Your task to perform on an android device: What's on my calendar tomorrow? Image 0: 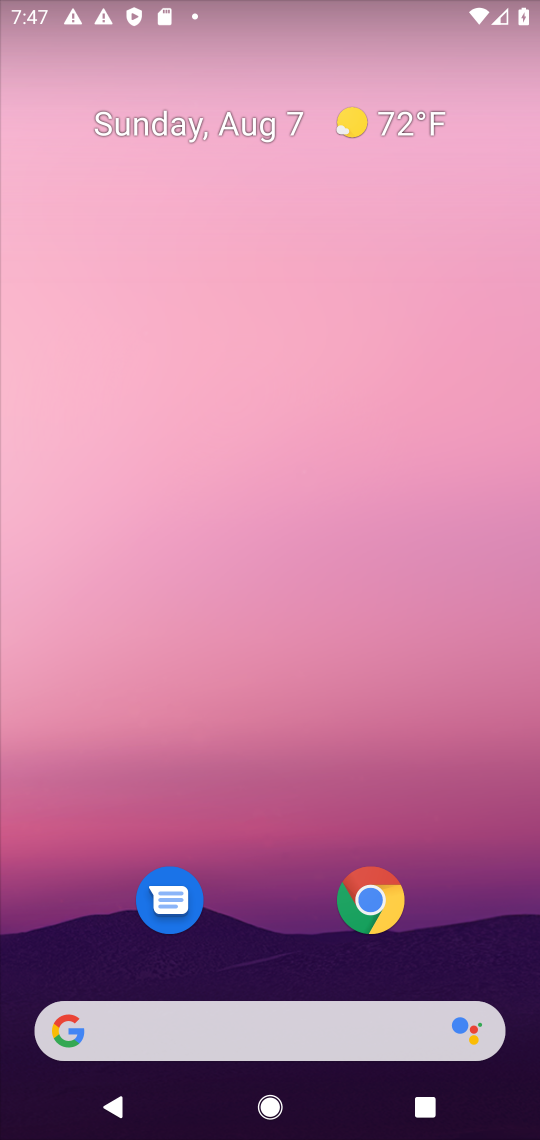
Step 0: drag from (240, 947) to (426, 286)
Your task to perform on an android device: What's on my calendar tomorrow? Image 1: 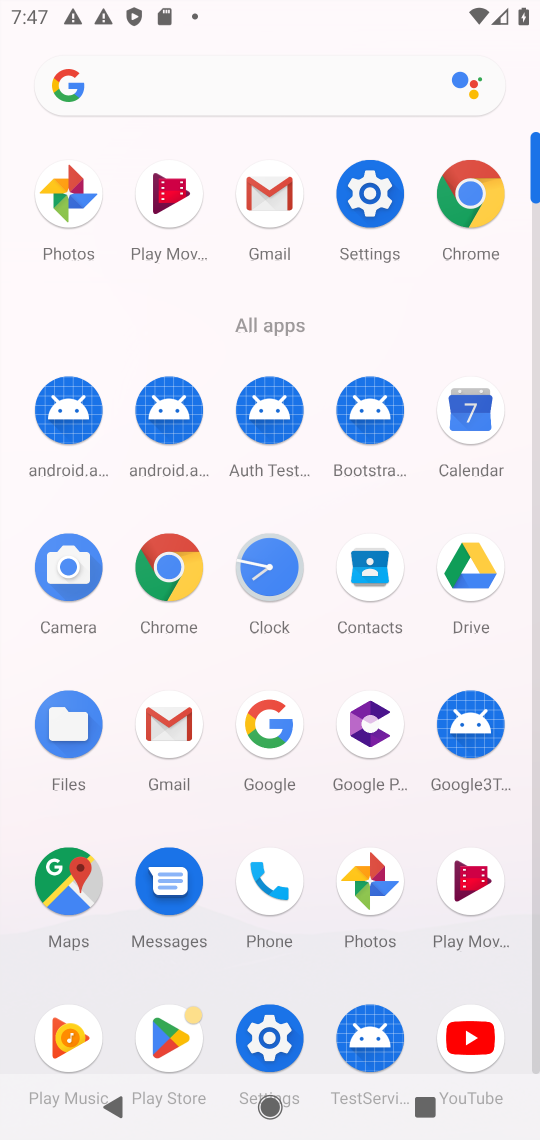
Step 1: click (475, 424)
Your task to perform on an android device: What's on my calendar tomorrow? Image 2: 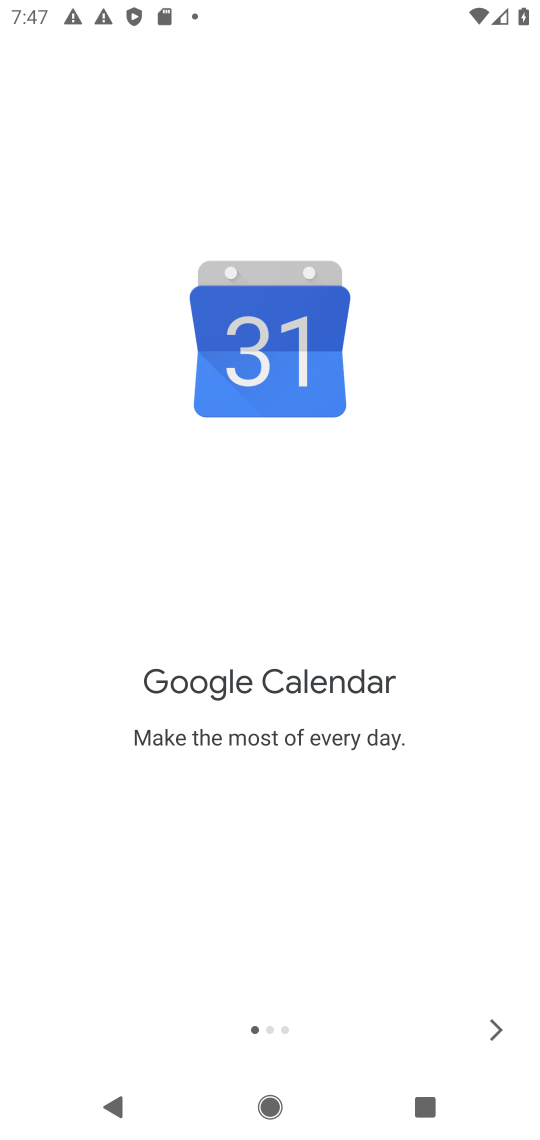
Step 2: click (488, 1037)
Your task to perform on an android device: What's on my calendar tomorrow? Image 3: 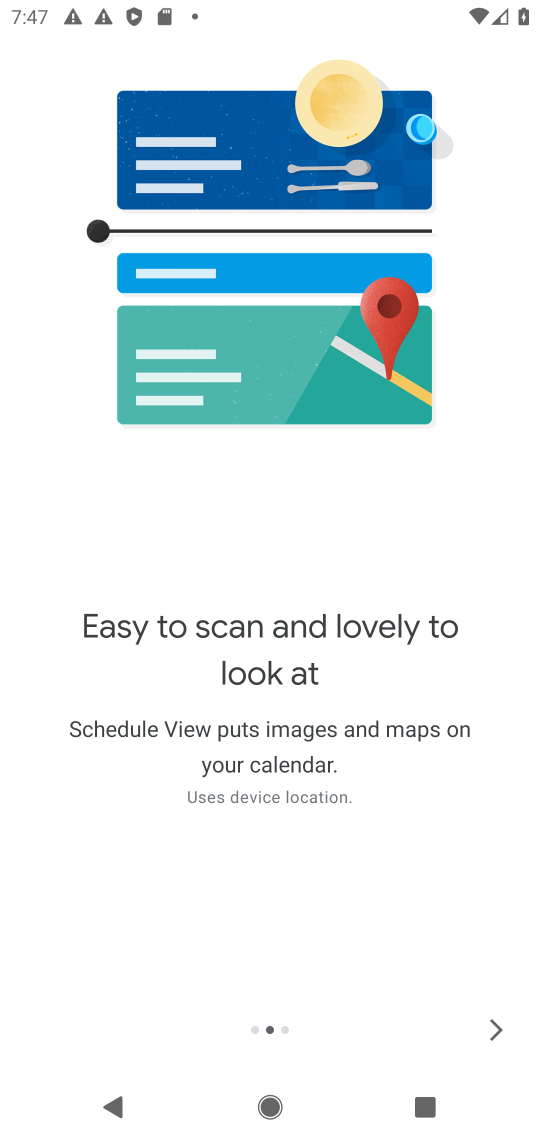
Step 3: click (495, 1023)
Your task to perform on an android device: What's on my calendar tomorrow? Image 4: 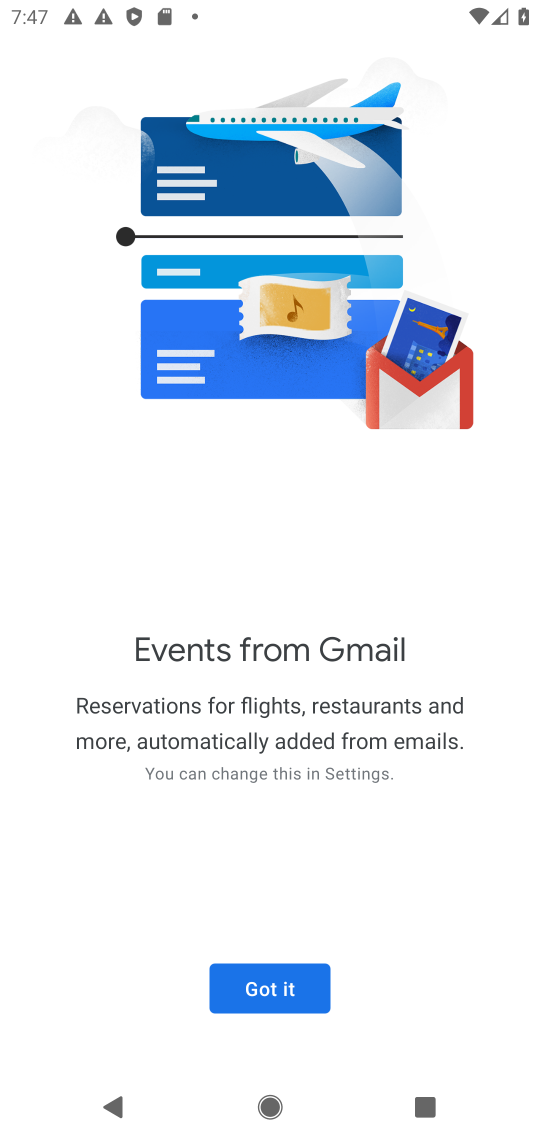
Step 4: click (257, 984)
Your task to perform on an android device: What's on my calendar tomorrow? Image 5: 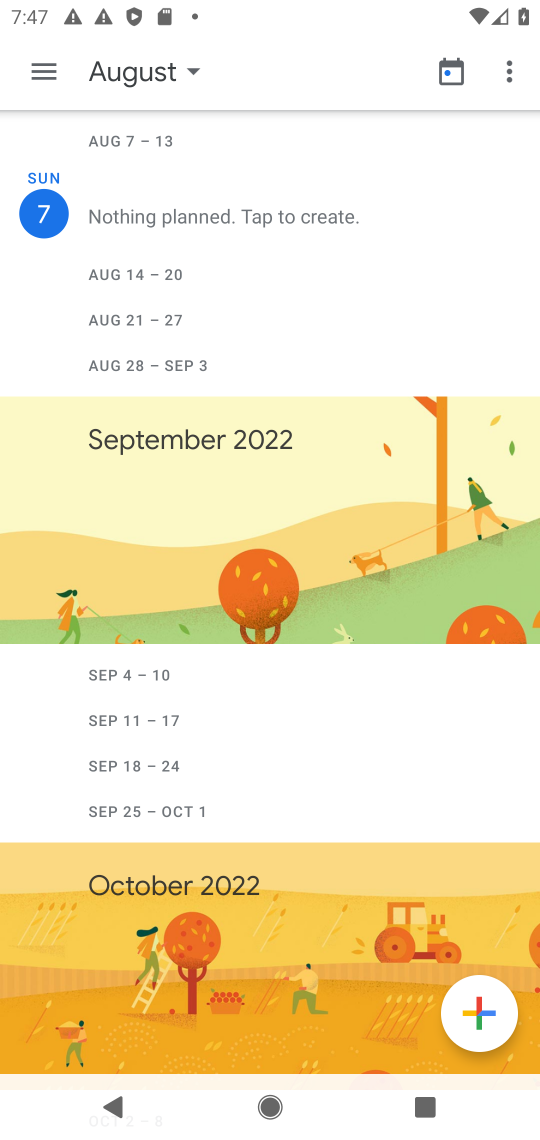
Step 5: click (124, 75)
Your task to perform on an android device: What's on my calendar tomorrow? Image 6: 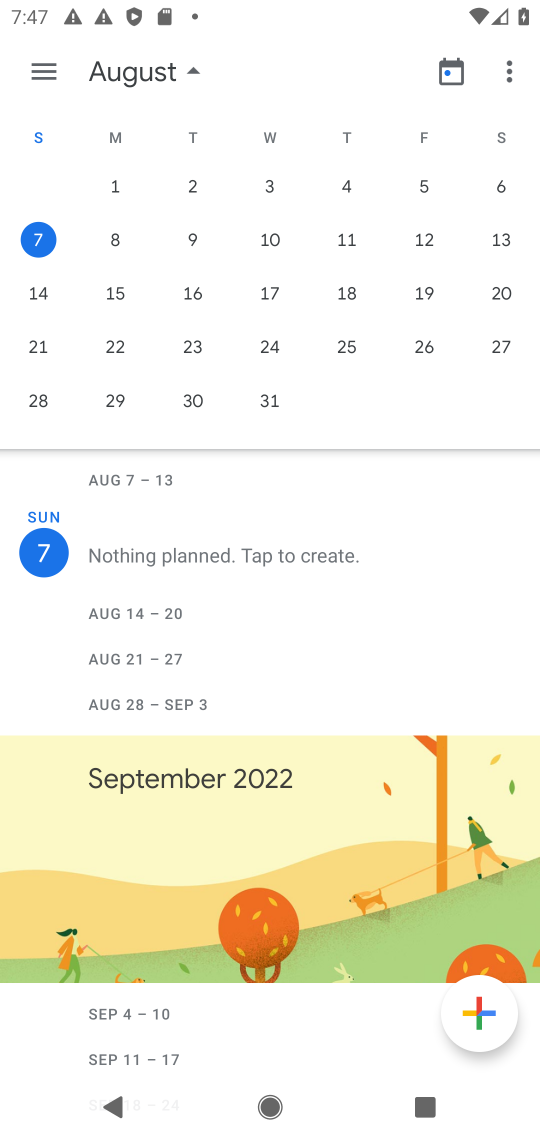
Step 6: click (113, 240)
Your task to perform on an android device: What's on my calendar tomorrow? Image 7: 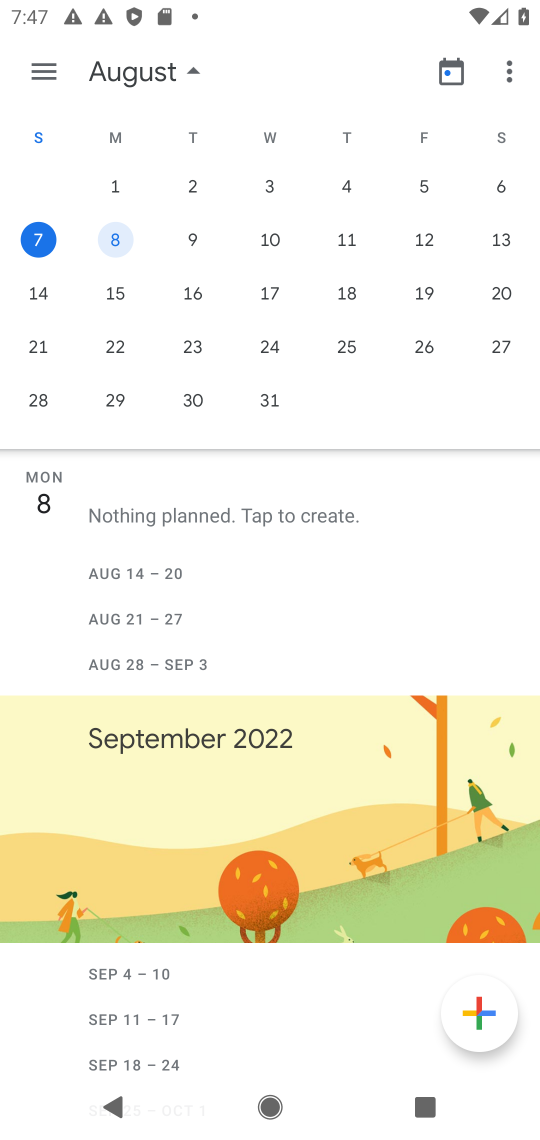
Step 7: click (36, 78)
Your task to perform on an android device: What's on my calendar tomorrow? Image 8: 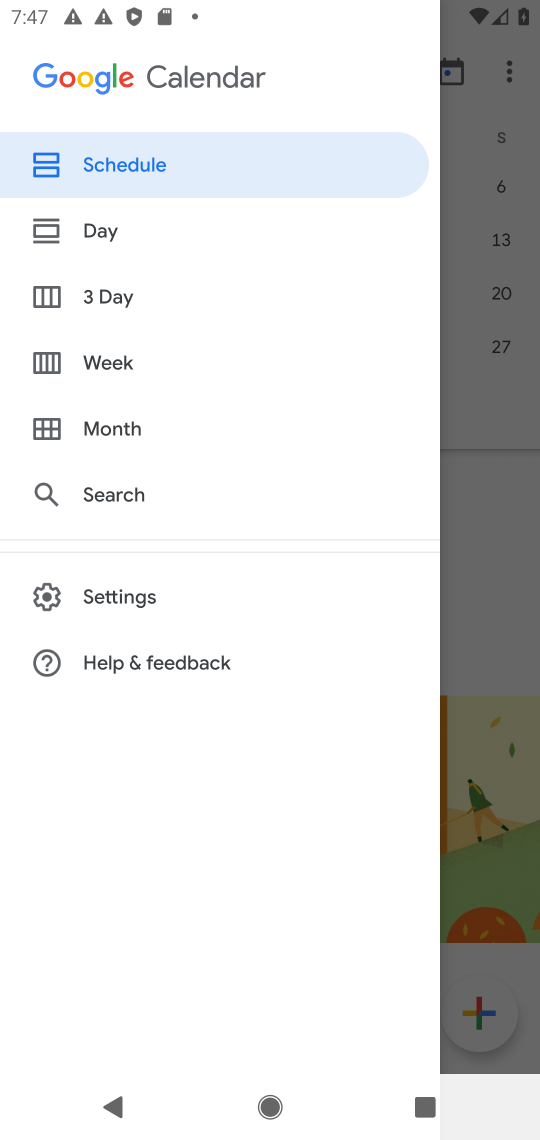
Step 8: click (102, 222)
Your task to perform on an android device: What's on my calendar tomorrow? Image 9: 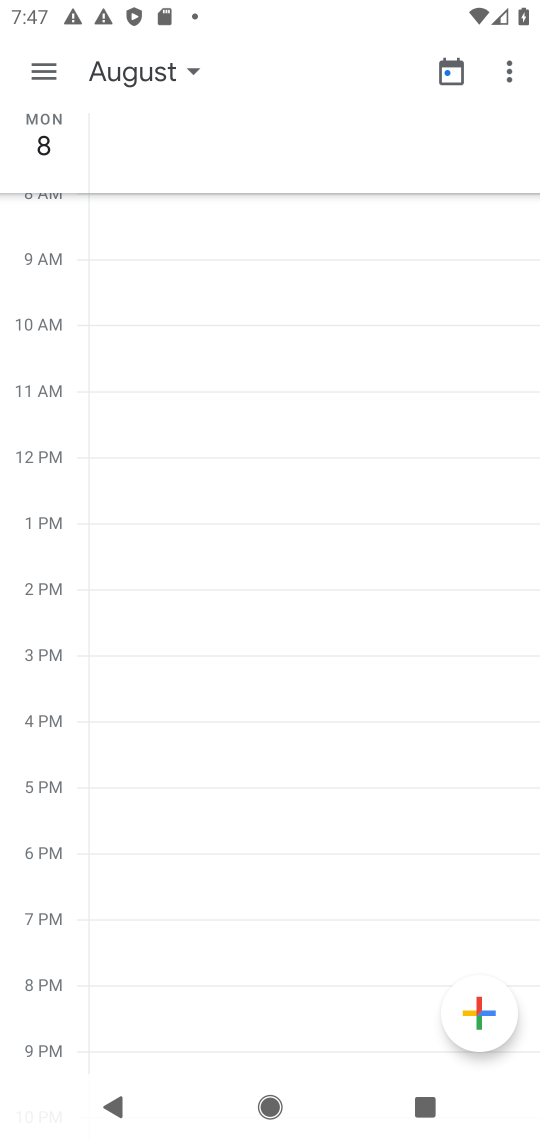
Step 9: click (60, 74)
Your task to perform on an android device: What's on my calendar tomorrow? Image 10: 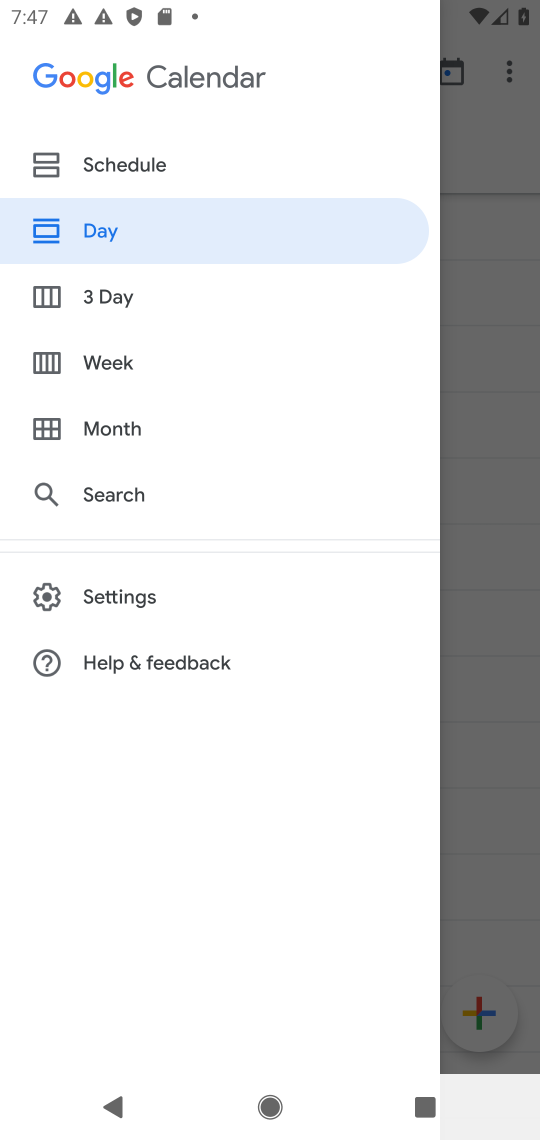
Step 10: click (111, 165)
Your task to perform on an android device: What's on my calendar tomorrow? Image 11: 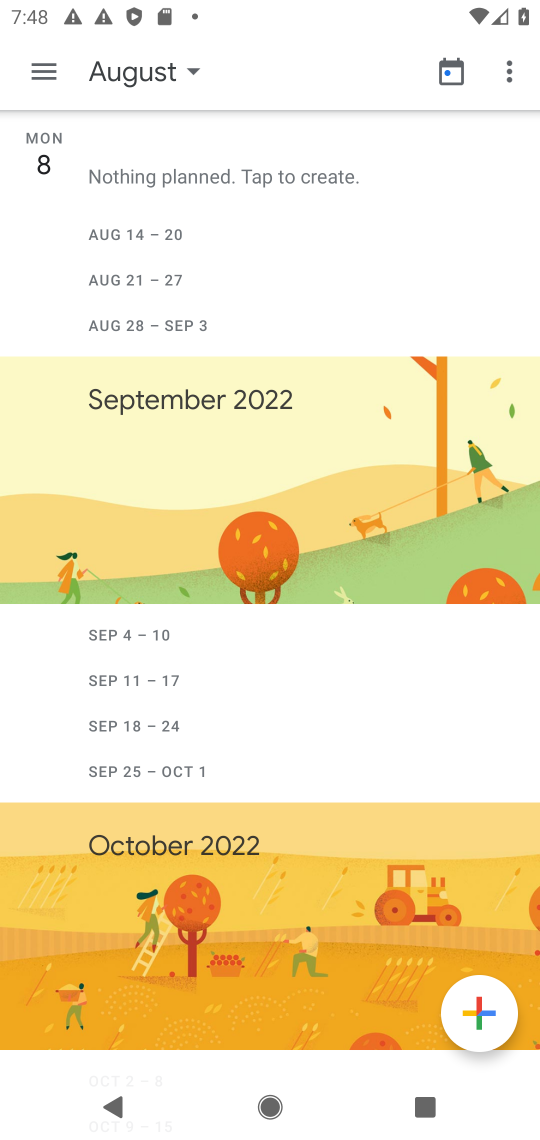
Step 11: task complete